Your task to perform on an android device: open a new tab in the chrome app Image 0: 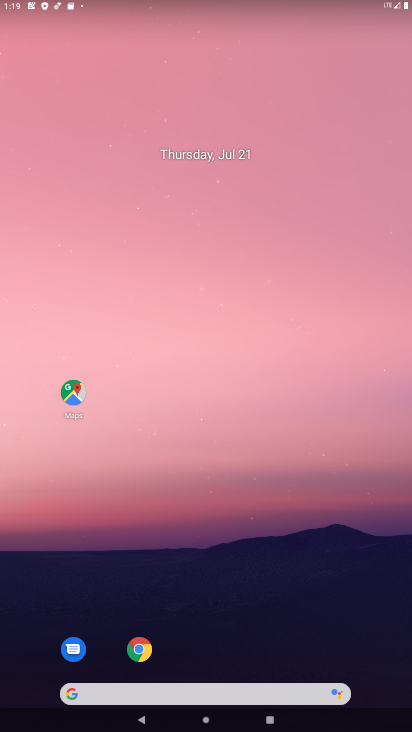
Step 0: click (140, 648)
Your task to perform on an android device: open a new tab in the chrome app Image 1: 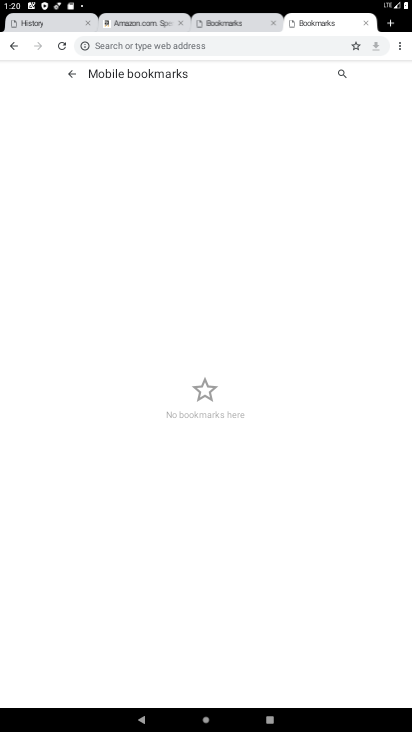
Step 1: click (401, 46)
Your task to perform on an android device: open a new tab in the chrome app Image 2: 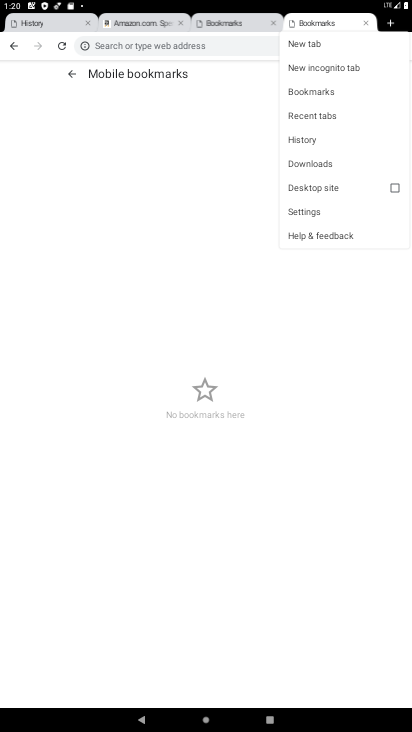
Step 2: click (319, 44)
Your task to perform on an android device: open a new tab in the chrome app Image 3: 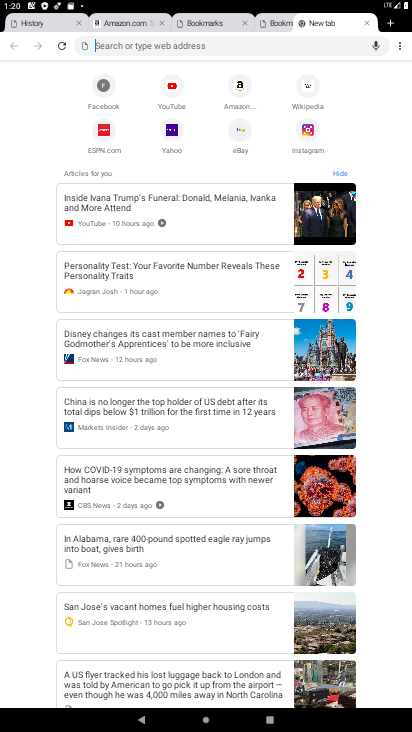
Step 3: task complete